Your task to perform on an android device: turn on data saver in the chrome app Image 0: 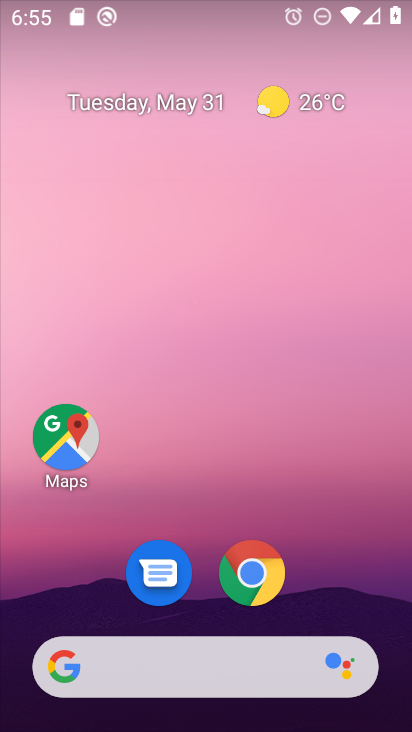
Step 0: drag from (378, 579) to (330, 60)
Your task to perform on an android device: turn on data saver in the chrome app Image 1: 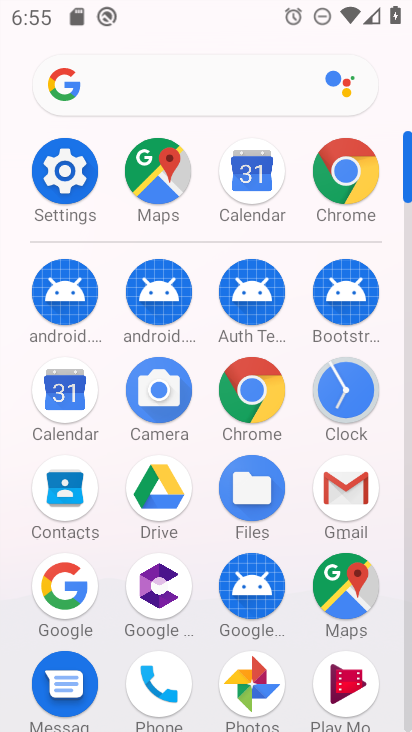
Step 1: click (349, 177)
Your task to perform on an android device: turn on data saver in the chrome app Image 2: 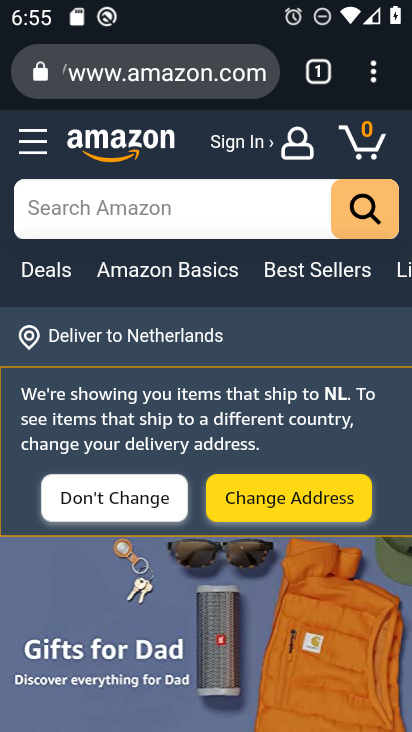
Step 2: press back button
Your task to perform on an android device: turn on data saver in the chrome app Image 3: 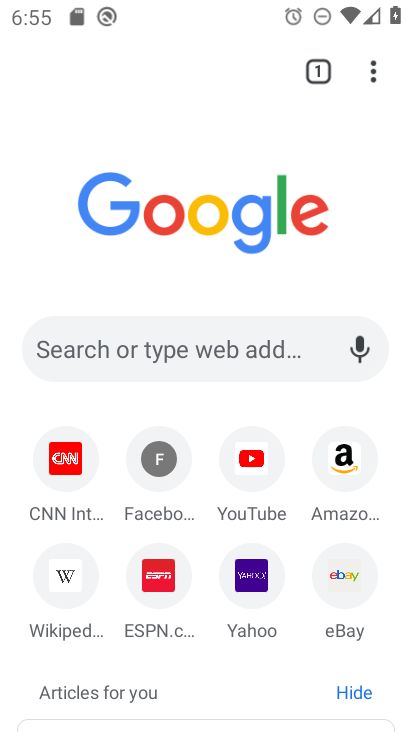
Step 3: click (366, 69)
Your task to perform on an android device: turn on data saver in the chrome app Image 4: 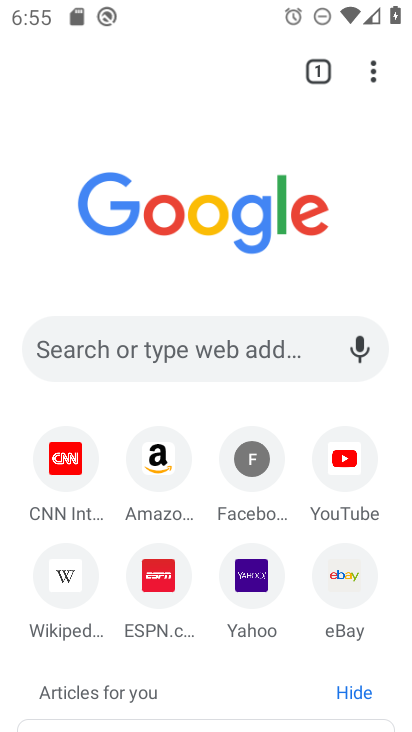
Step 4: click (371, 67)
Your task to perform on an android device: turn on data saver in the chrome app Image 5: 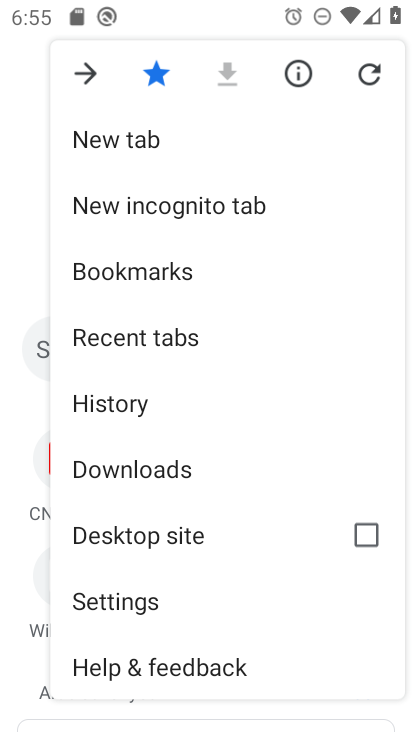
Step 5: click (141, 610)
Your task to perform on an android device: turn on data saver in the chrome app Image 6: 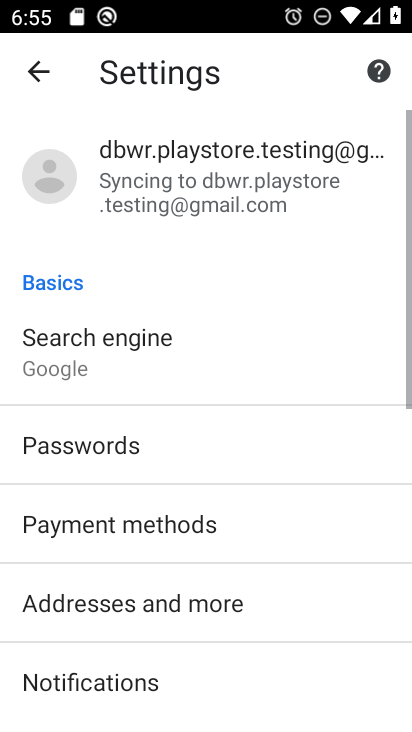
Step 6: drag from (180, 638) to (204, 87)
Your task to perform on an android device: turn on data saver in the chrome app Image 7: 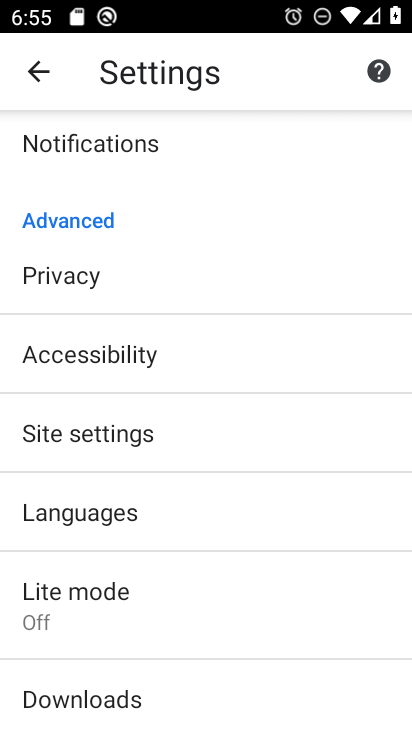
Step 7: click (164, 599)
Your task to perform on an android device: turn on data saver in the chrome app Image 8: 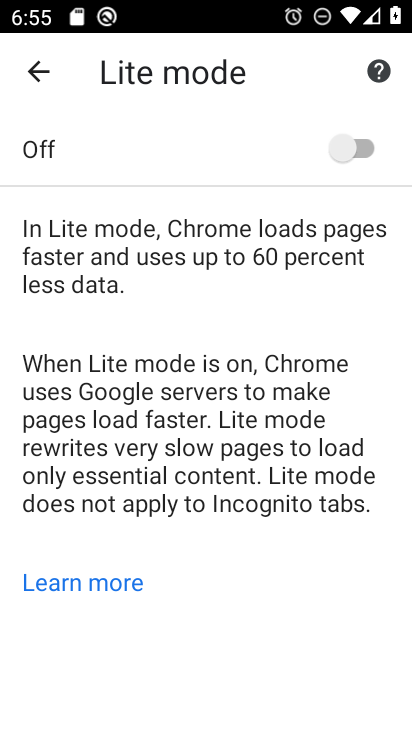
Step 8: click (370, 158)
Your task to perform on an android device: turn on data saver in the chrome app Image 9: 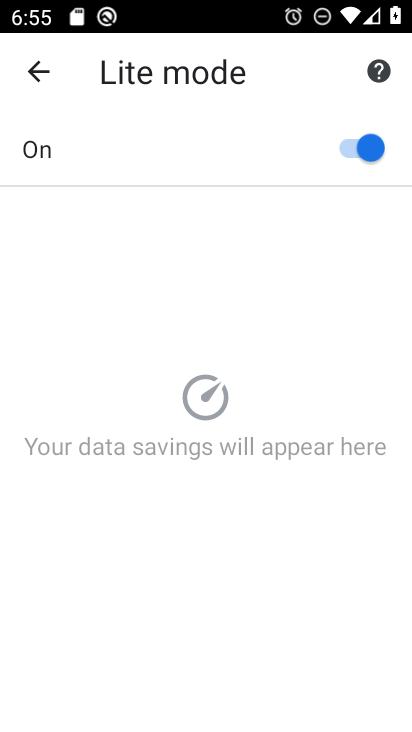
Step 9: task complete